Your task to perform on an android device: find snoozed emails in the gmail app Image 0: 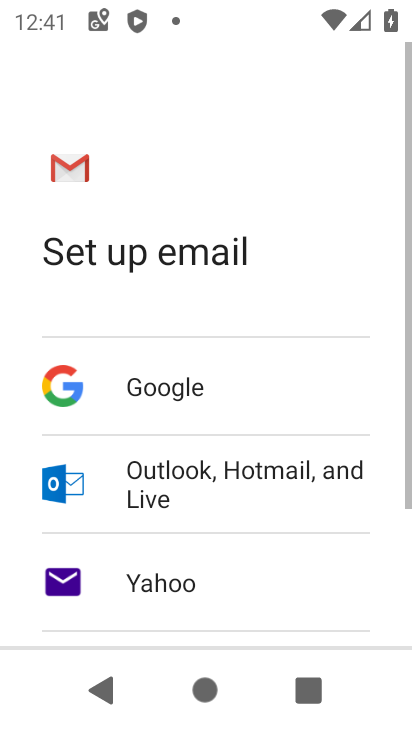
Step 0: press home button
Your task to perform on an android device: find snoozed emails in the gmail app Image 1: 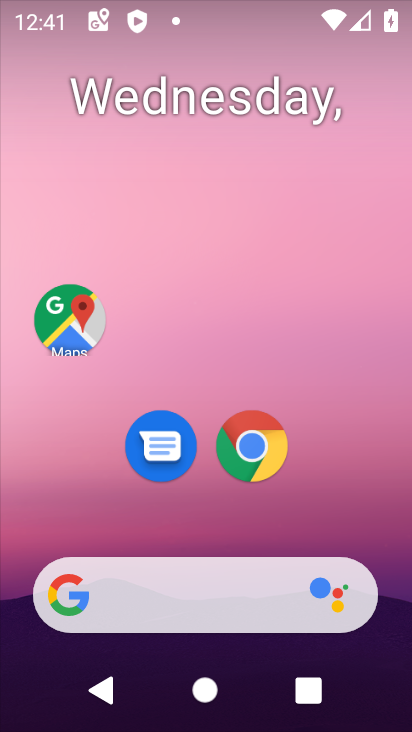
Step 1: drag from (195, 507) to (212, 149)
Your task to perform on an android device: find snoozed emails in the gmail app Image 2: 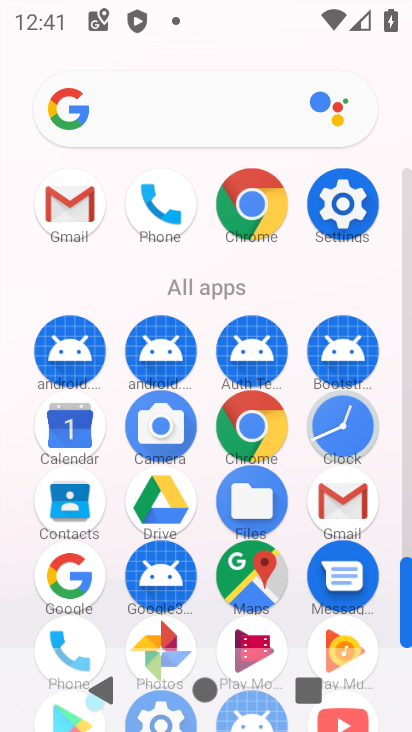
Step 2: click (334, 498)
Your task to perform on an android device: find snoozed emails in the gmail app Image 3: 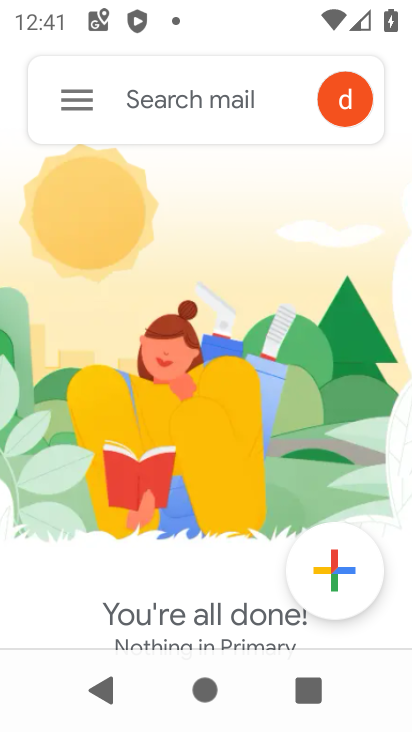
Step 3: click (61, 104)
Your task to perform on an android device: find snoozed emails in the gmail app Image 4: 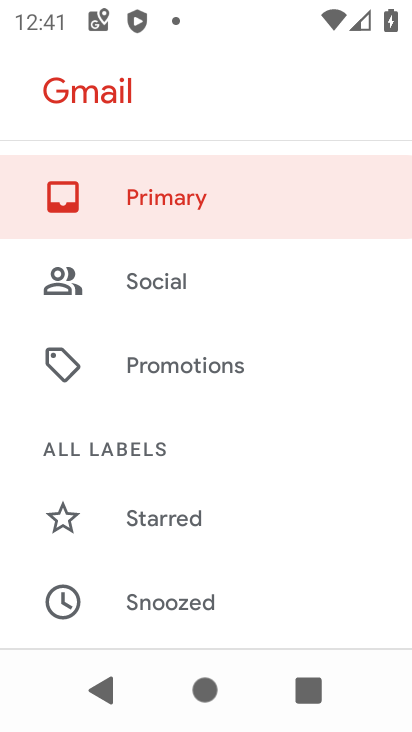
Step 4: click (187, 608)
Your task to perform on an android device: find snoozed emails in the gmail app Image 5: 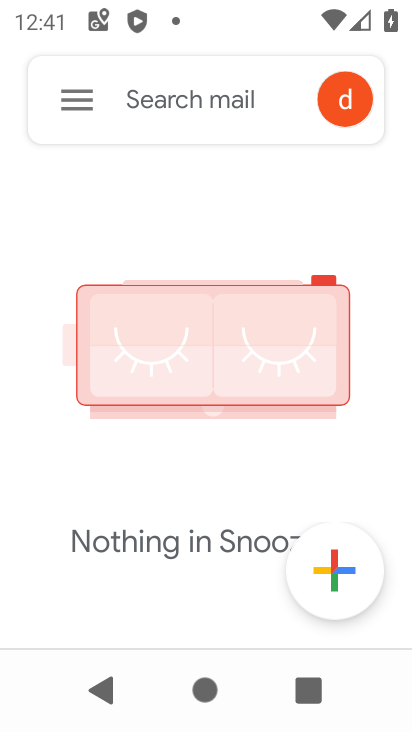
Step 5: task complete